Your task to perform on an android device: toggle pop-ups in chrome Image 0: 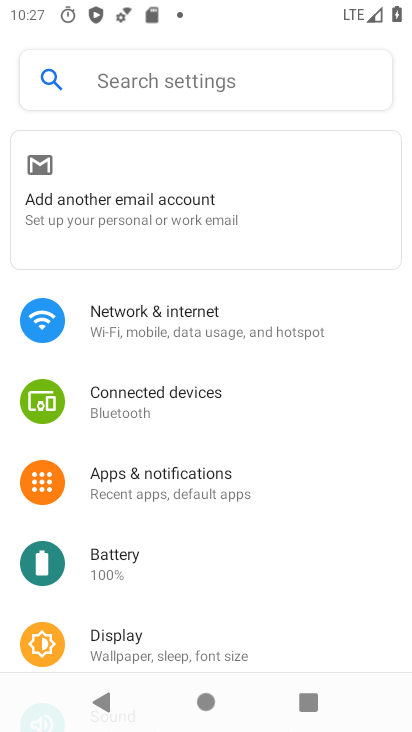
Step 0: press home button
Your task to perform on an android device: toggle pop-ups in chrome Image 1: 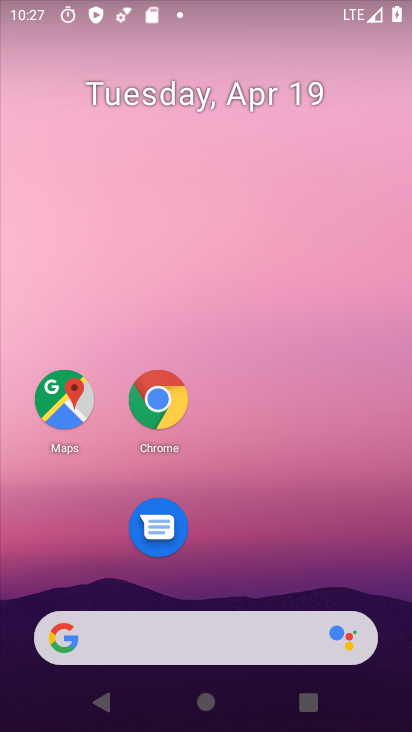
Step 1: drag from (249, 676) to (410, 253)
Your task to perform on an android device: toggle pop-ups in chrome Image 2: 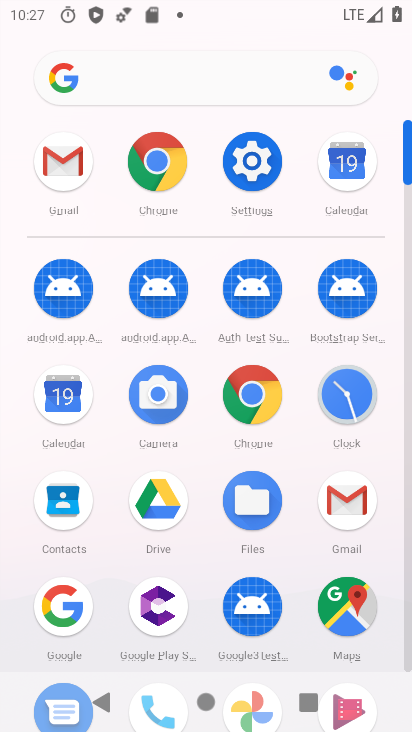
Step 2: click (159, 185)
Your task to perform on an android device: toggle pop-ups in chrome Image 3: 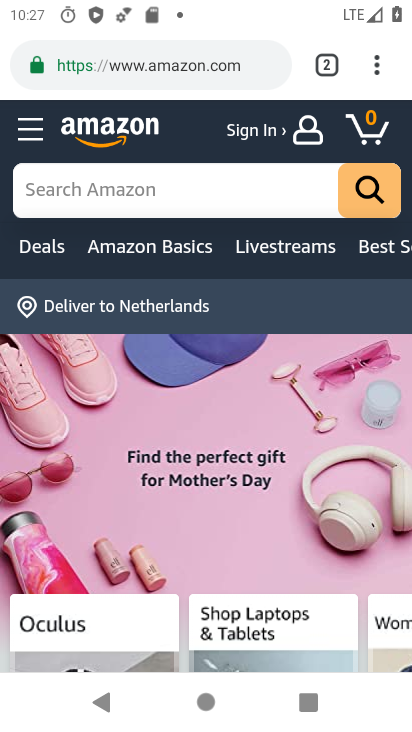
Step 3: click (378, 72)
Your task to perform on an android device: toggle pop-ups in chrome Image 4: 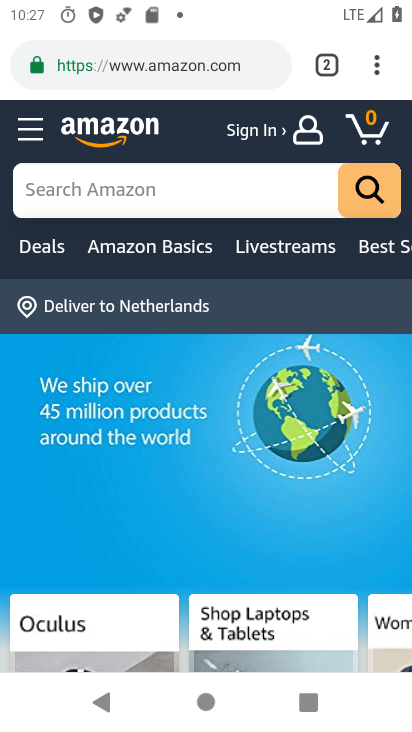
Step 4: click (374, 53)
Your task to perform on an android device: toggle pop-ups in chrome Image 5: 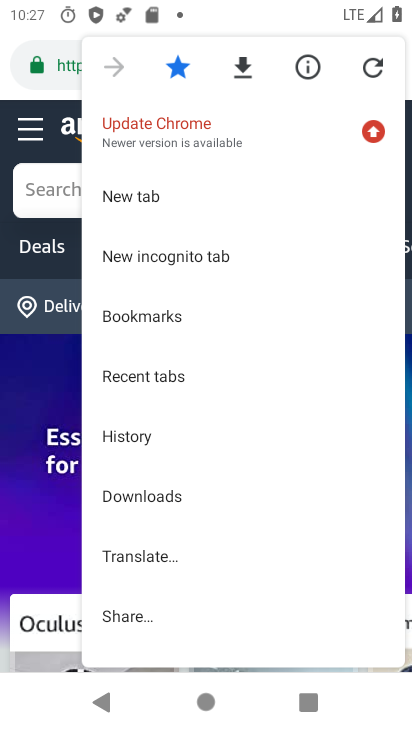
Step 5: drag from (144, 520) to (200, 334)
Your task to perform on an android device: toggle pop-ups in chrome Image 6: 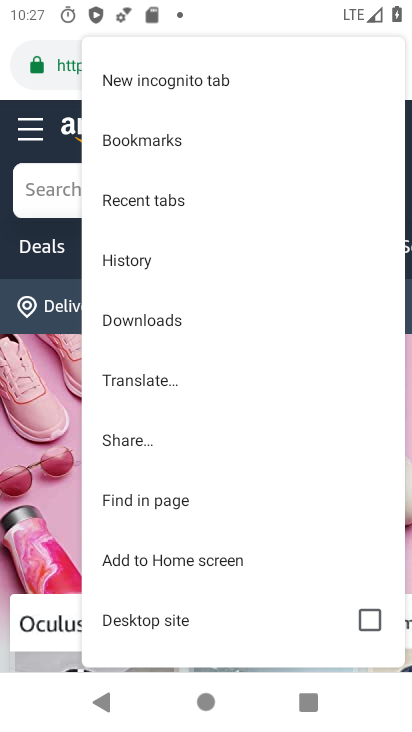
Step 6: drag from (164, 582) to (186, 501)
Your task to perform on an android device: toggle pop-ups in chrome Image 7: 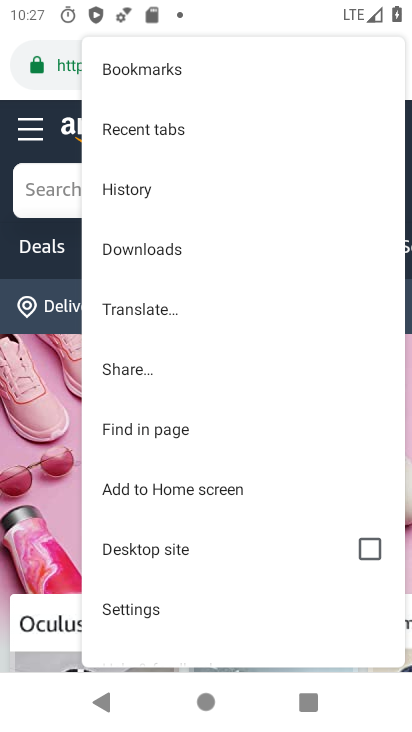
Step 7: click (125, 608)
Your task to perform on an android device: toggle pop-ups in chrome Image 8: 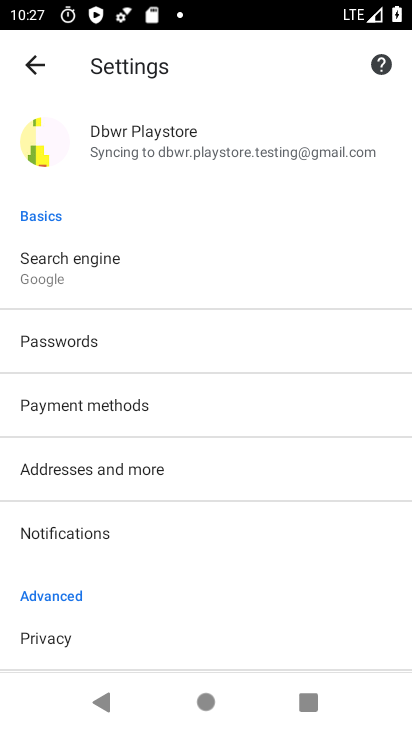
Step 8: drag from (202, 581) to (308, 180)
Your task to perform on an android device: toggle pop-ups in chrome Image 9: 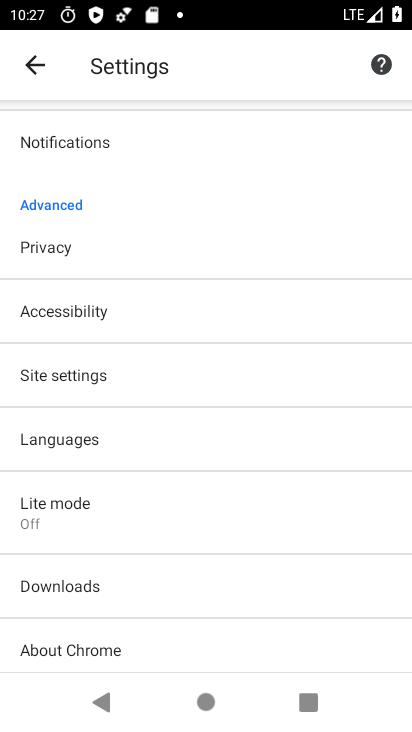
Step 9: click (67, 365)
Your task to perform on an android device: toggle pop-ups in chrome Image 10: 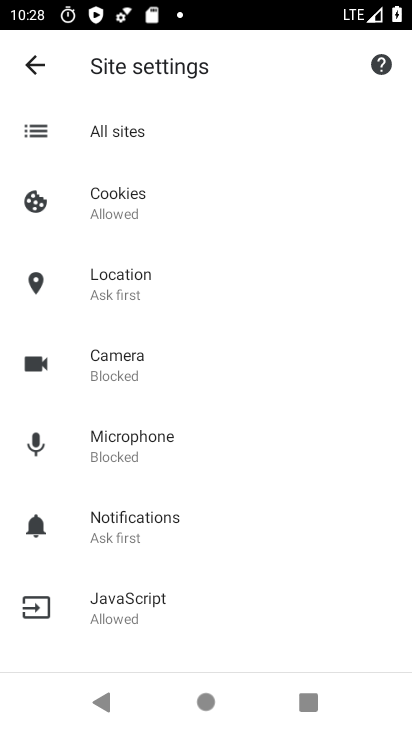
Step 10: drag from (211, 530) to (231, 427)
Your task to perform on an android device: toggle pop-ups in chrome Image 11: 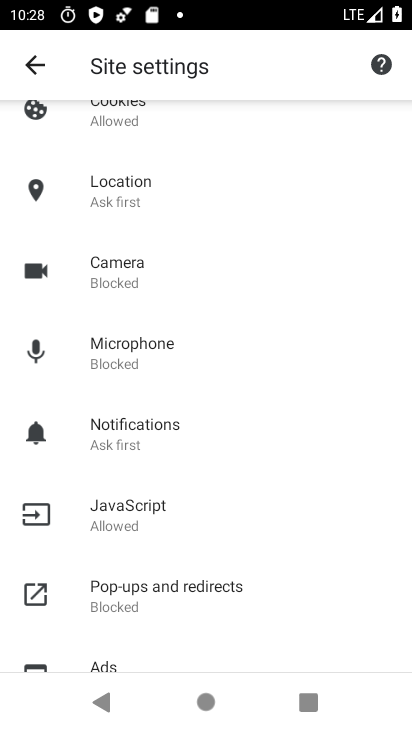
Step 11: click (124, 581)
Your task to perform on an android device: toggle pop-ups in chrome Image 12: 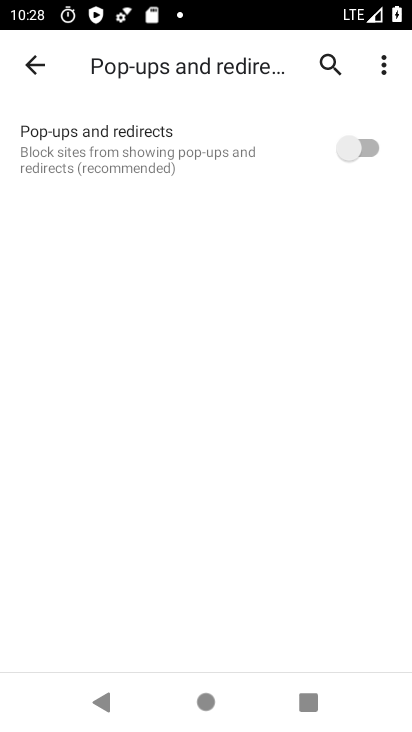
Step 12: click (235, 147)
Your task to perform on an android device: toggle pop-ups in chrome Image 13: 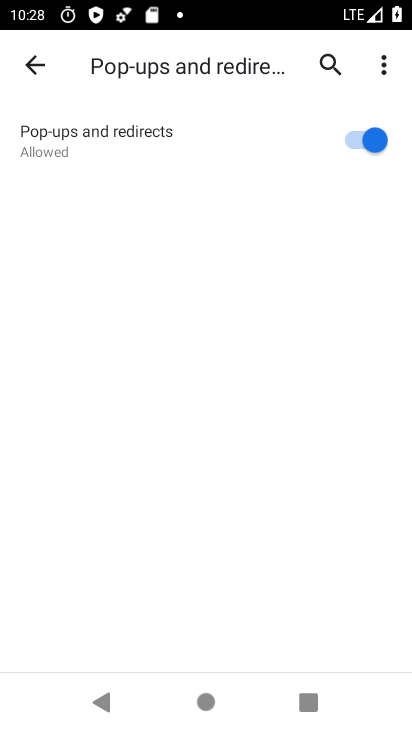
Step 13: task complete